Your task to perform on an android device: Open internet settings Image 0: 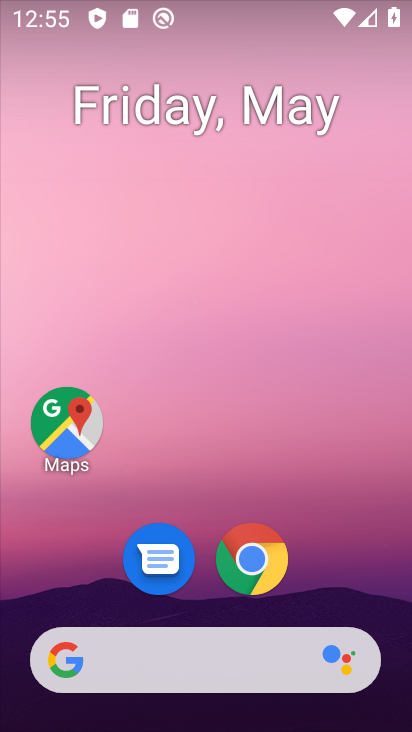
Step 0: drag from (340, 493) to (309, 196)
Your task to perform on an android device: Open internet settings Image 1: 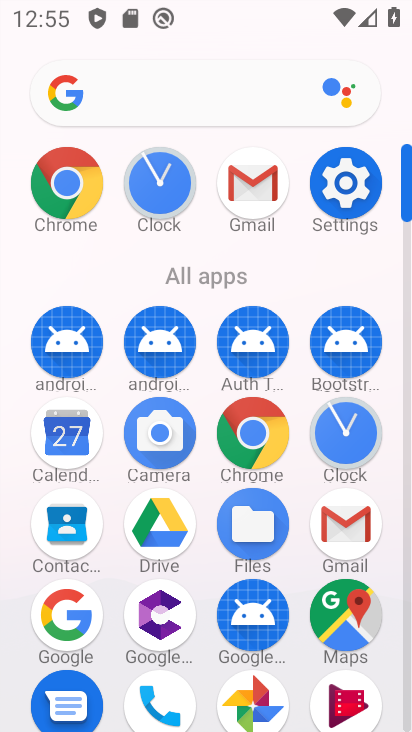
Step 1: click (369, 194)
Your task to perform on an android device: Open internet settings Image 2: 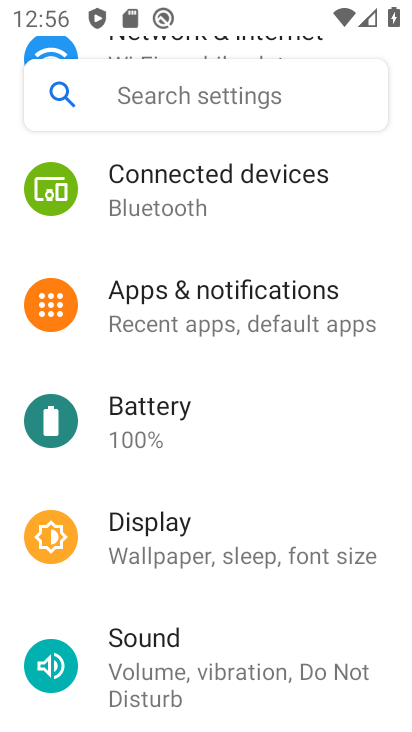
Step 2: drag from (296, 268) to (294, 648)
Your task to perform on an android device: Open internet settings Image 3: 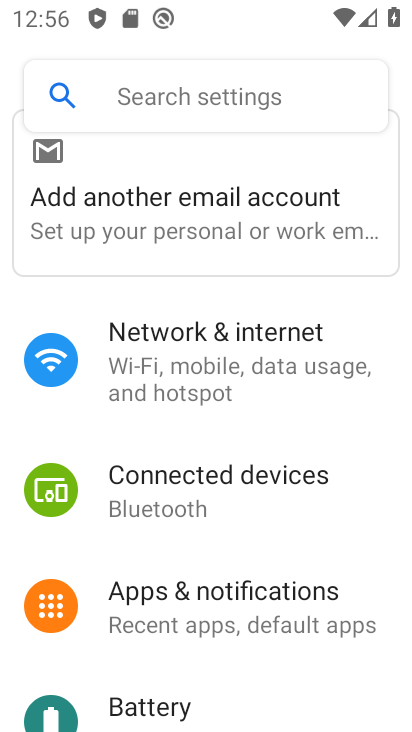
Step 3: click (236, 355)
Your task to perform on an android device: Open internet settings Image 4: 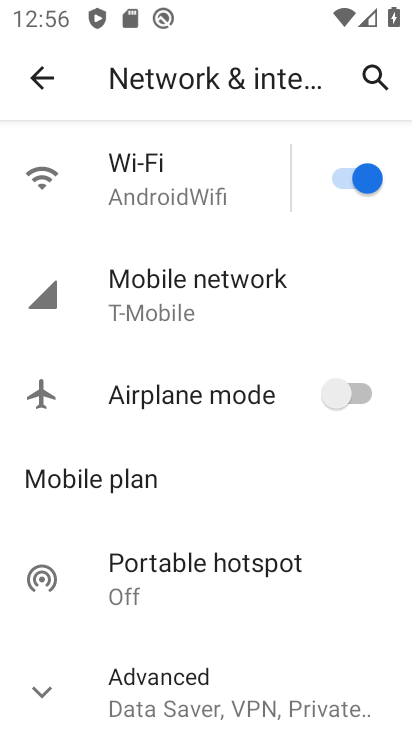
Step 4: click (185, 283)
Your task to perform on an android device: Open internet settings Image 5: 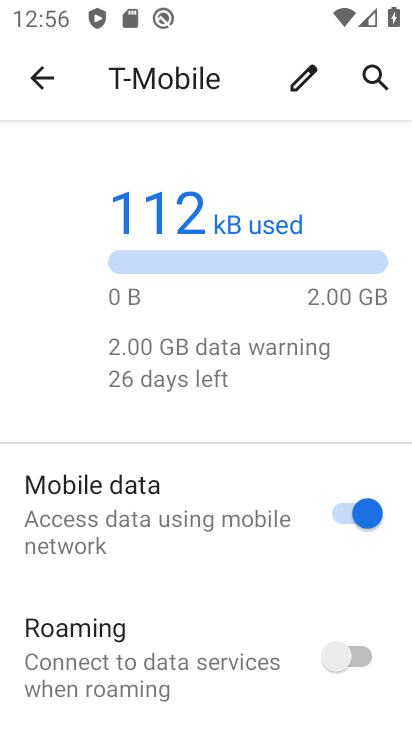
Step 5: task complete